Your task to perform on an android device: Go to display settings Image 0: 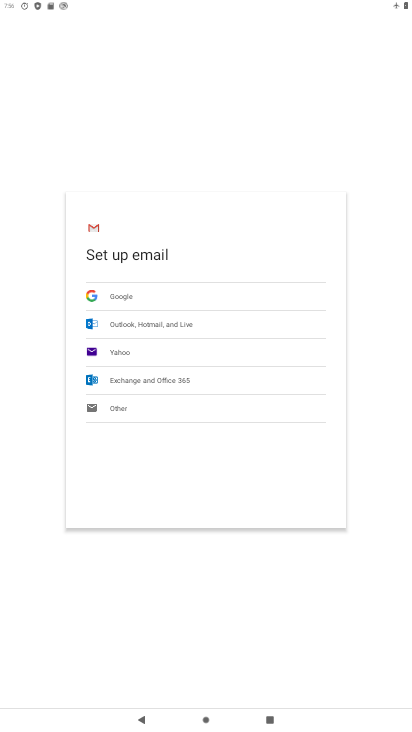
Step 0: press home button
Your task to perform on an android device: Go to display settings Image 1: 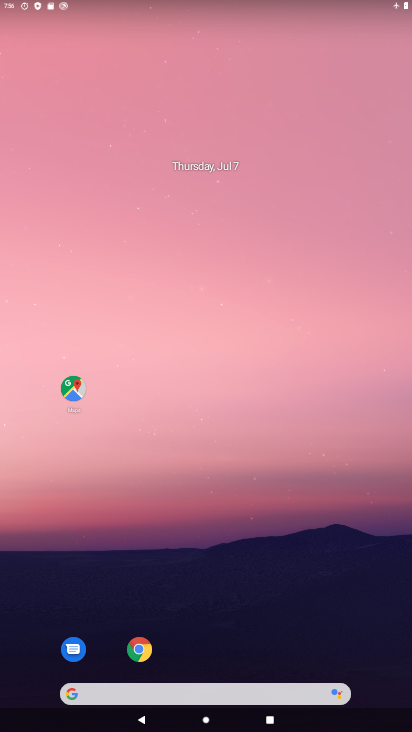
Step 1: drag from (216, 653) to (247, 13)
Your task to perform on an android device: Go to display settings Image 2: 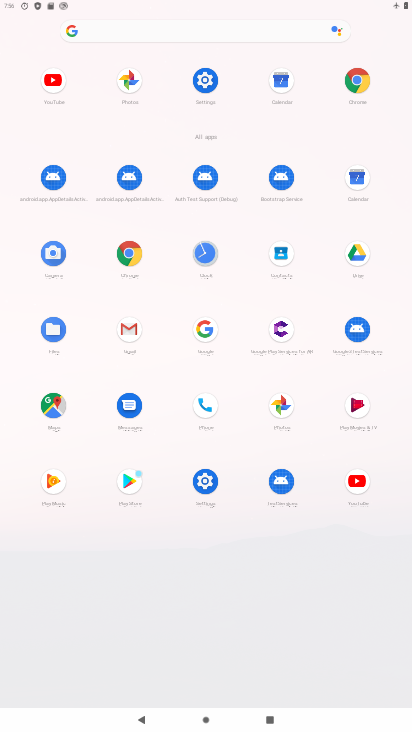
Step 2: click (202, 71)
Your task to perform on an android device: Go to display settings Image 3: 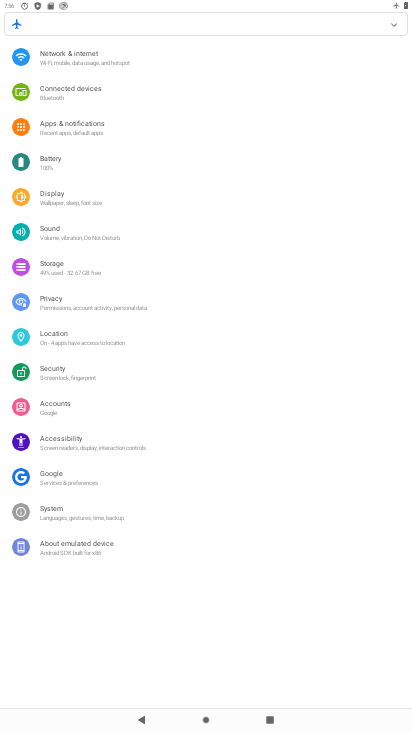
Step 3: click (67, 195)
Your task to perform on an android device: Go to display settings Image 4: 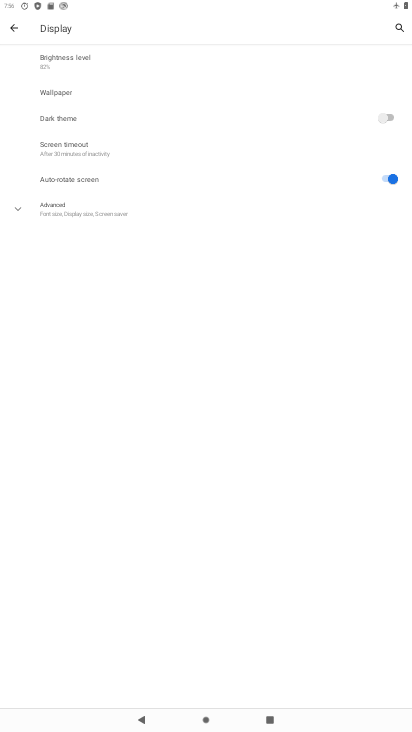
Step 4: click (27, 202)
Your task to perform on an android device: Go to display settings Image 5: 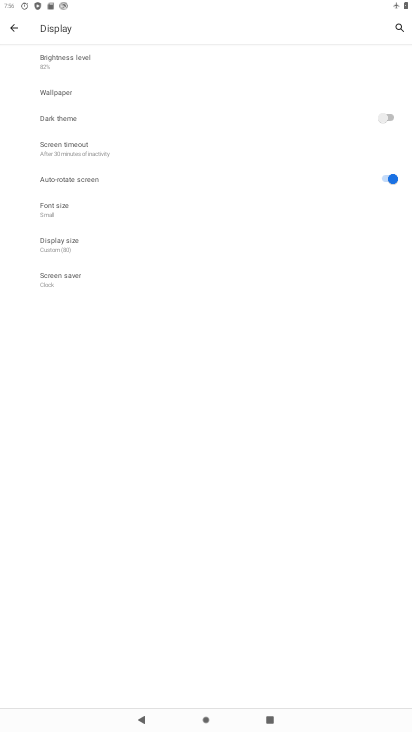
Step 5: task complete